Your task to perform on an android device: turn on wifi Image 0: 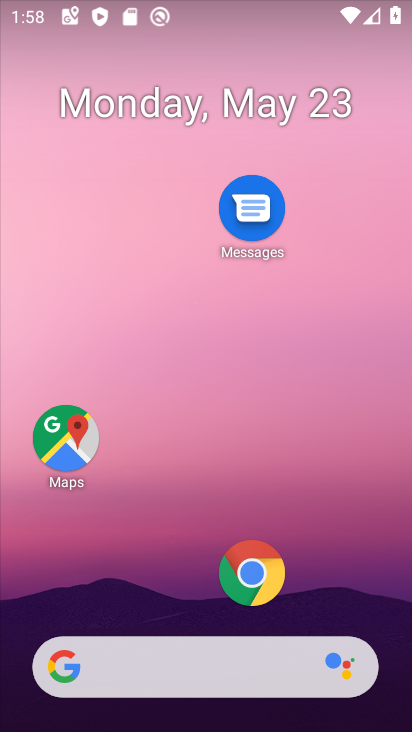
Step 0: drag from (301, 682) to (321, 54)
Your task to perform on an android device: turn on wifi Image 1: 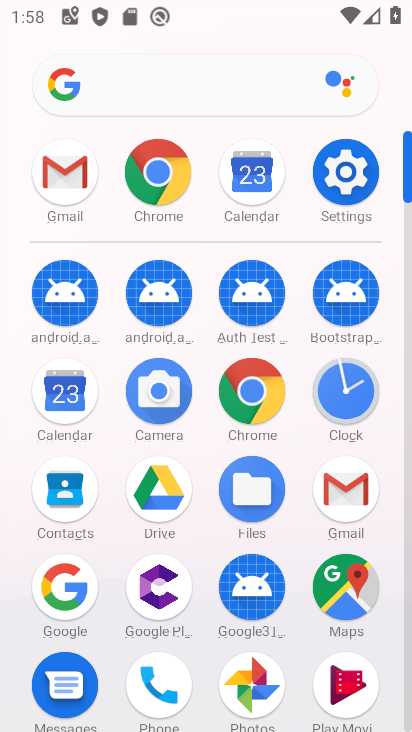
Step 1: click (354, 173)
Your task to perform on an android device: turn on wifi Image 2: 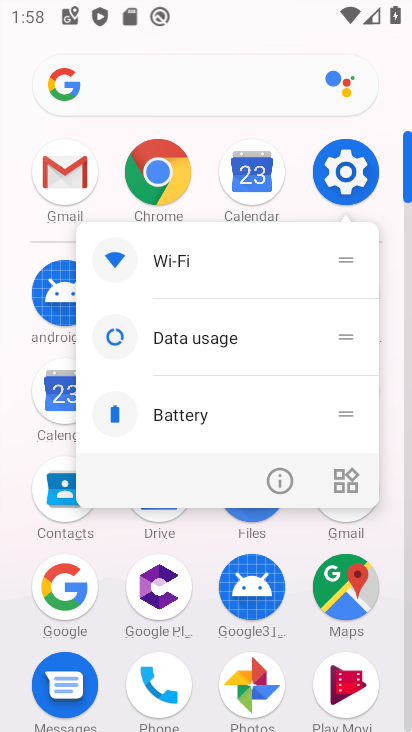
Step 2: click (243, 265)
Your task to perform on an android device: turn on wifi Image 3: 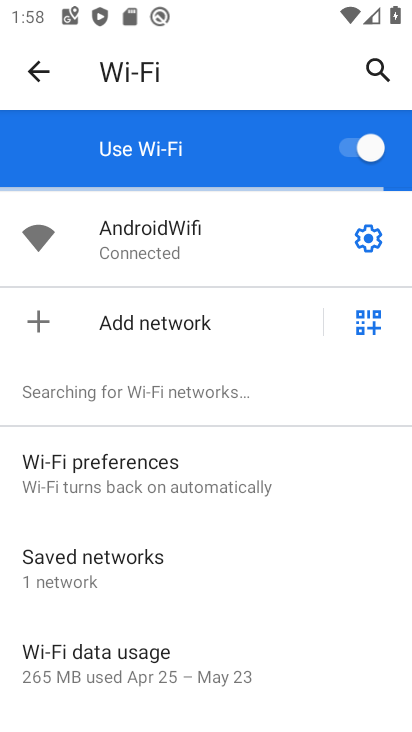
Step 3: task complete